Your task to perform on an android device: Turn off the flashlight Image 0: 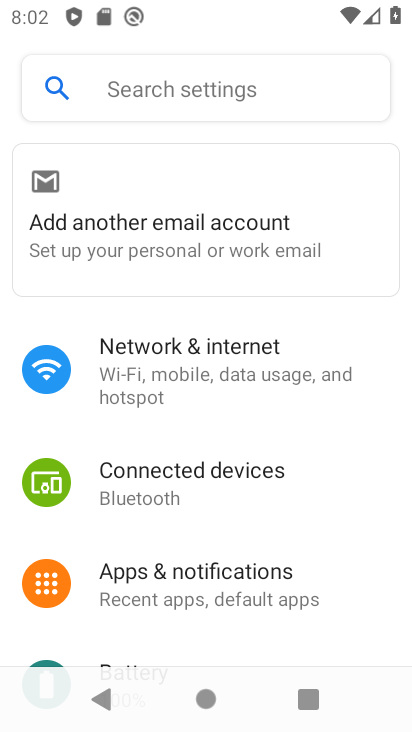
Step 0: press home button
Your task to perform on an android device: Turn off the flashlight Image 1: 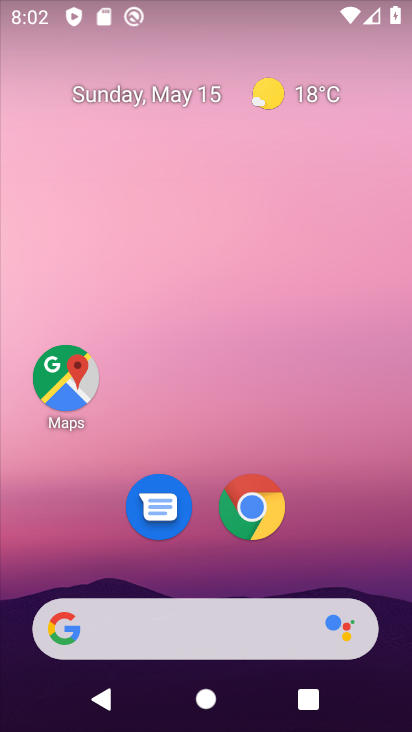
Step 1: drag from (115, 519) to (330, 187)
Your task to perform on an android device: Turn off the flashlight Image 2: 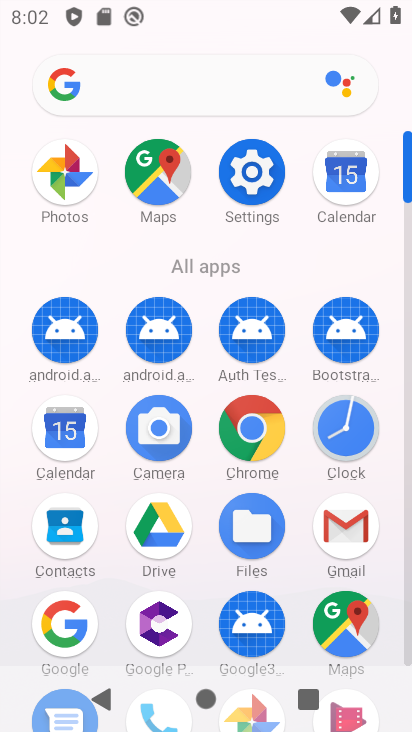
Step 2: click (247, 165)
Your task to perform on an android device: Turn off the flashlight Image 3: 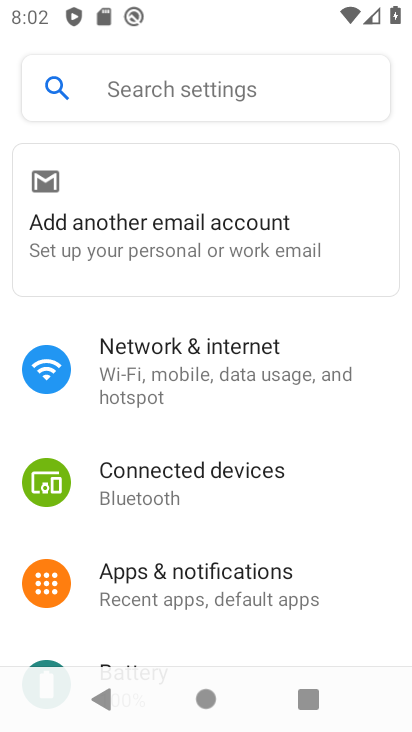
Step 3: drag from (122, 534) to (234, 294)
Your task to perform on an android device: Turn off the flashlight Image 4: 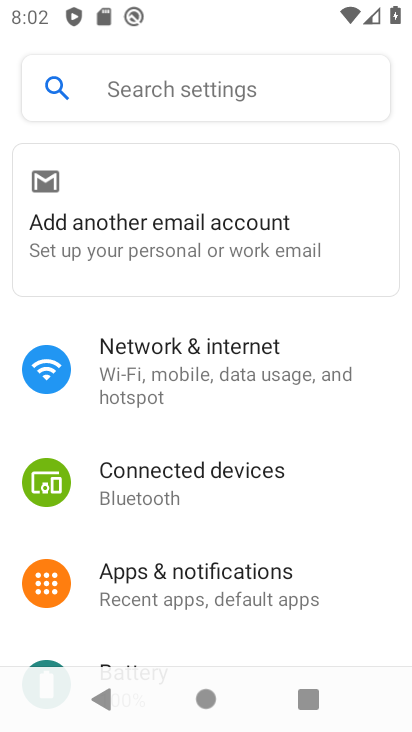
Step 4: click (167, 561)
Your task to perform on an android device: Turn off the flashlight Image 5: 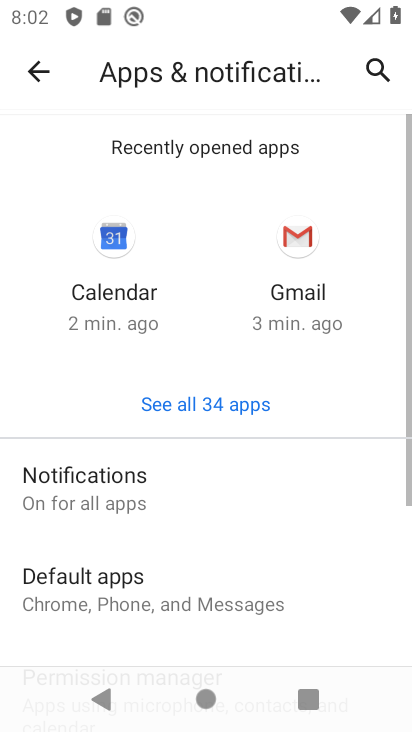
Step 5: task complete